Your task to perform on an android device: open a new tab in the chrome app Image 0: 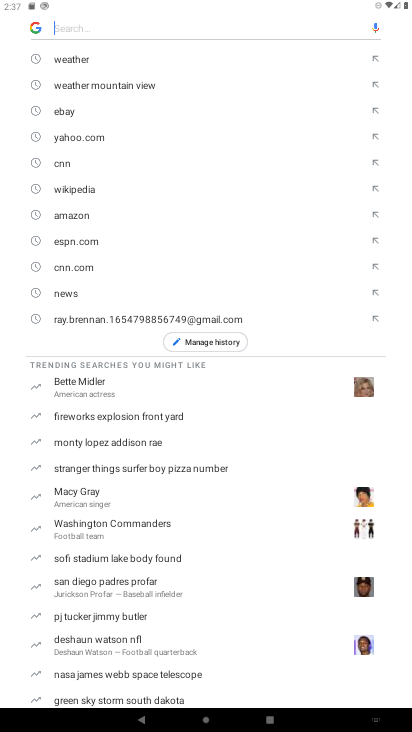
Step 0: press home button
Your task to perform on an android device: open a new tab in the chrome app Image 1: 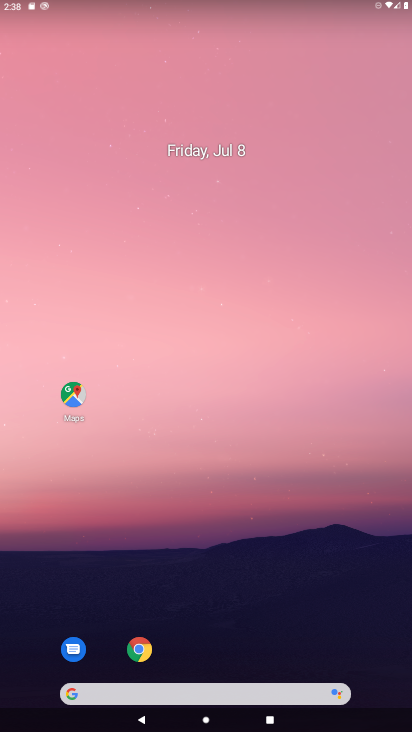
Step 1: click (141, 651)
Your task to perform on an android device: open a new tab in the chrome app Image 2: 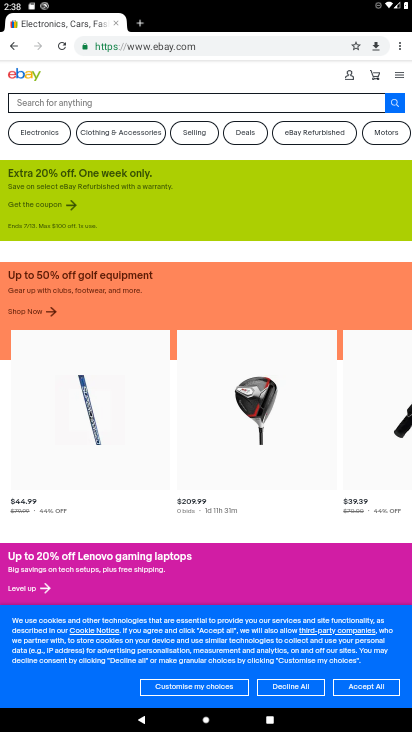
Step 2: click (398, 48)
Your task to perform on an android device: open a new tab in the chrome app Image 3: 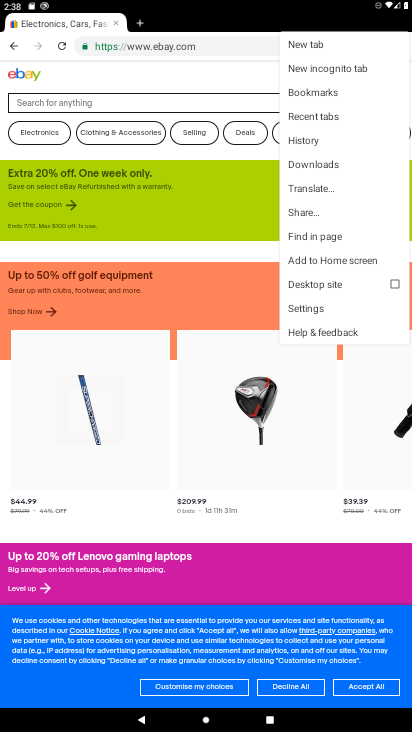
Step 3: click (300, 42)
Your task to perform on an android device: open a new tab in the chrome app Image 4: 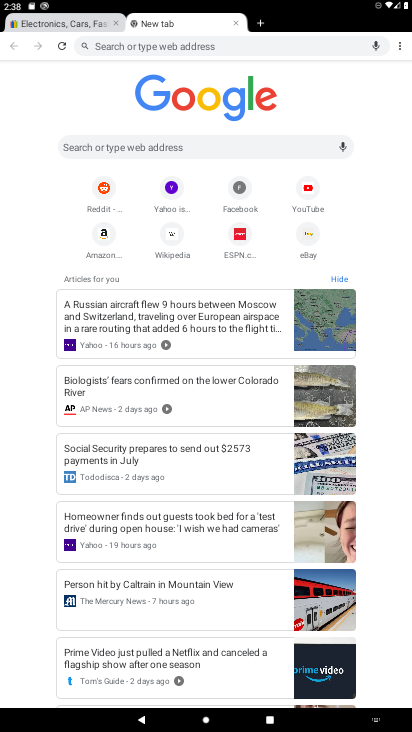
Step 4: task complete